Your task to perform on an android device: refresh tabs in the chrome app Image 0: 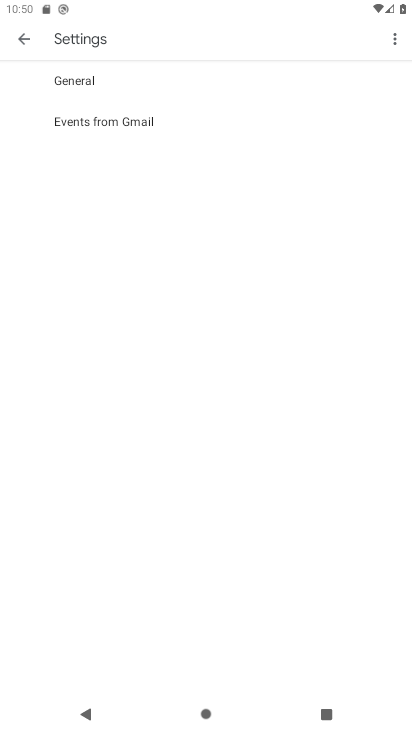
Step 0: press home button
Your task to perform on an android device: refresh tabs in the chrome app Image 1: 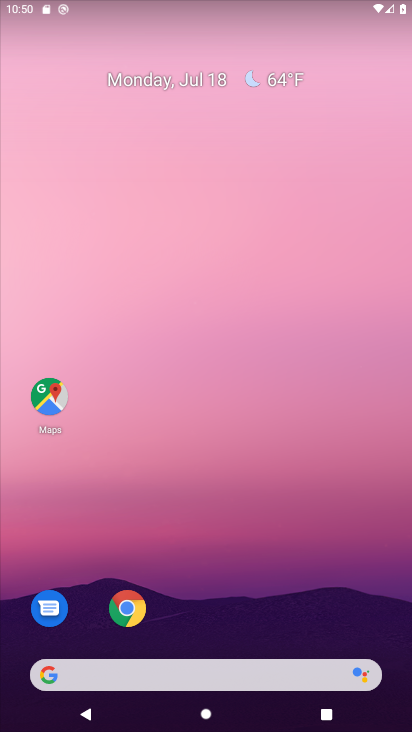
Step 1: click (123, 605)
Your task to perform on an android device: refresh tabs in the chrome app Image 2: 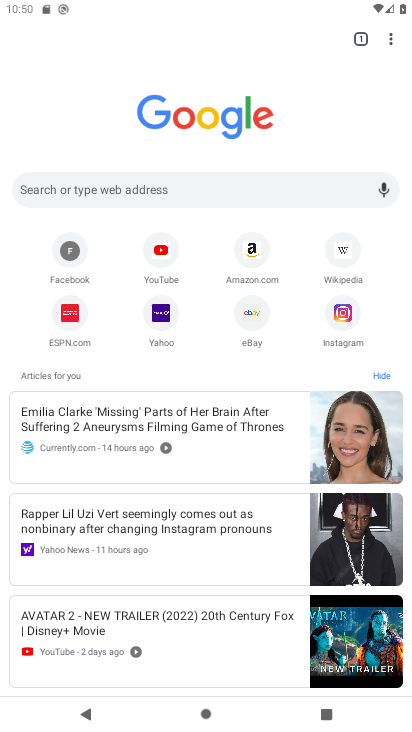
Step 2: click (393, 42)
Your task to perform on an android device: refresh tabs in the chrome app Image 3: 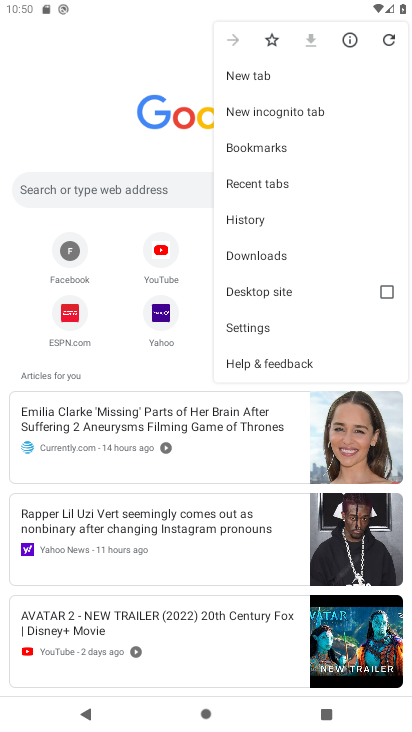
Step 3: click (387, 43)
Your task to perform on an android device: refresh tabs in the chrome app Image 4: 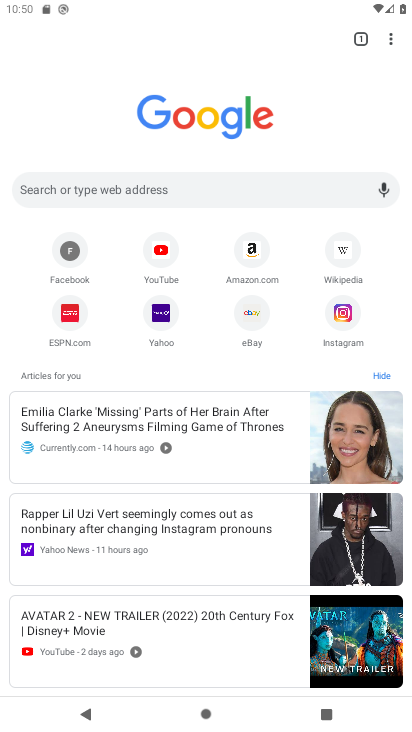
Step 4: task complete